Your task to perform on an android device: open app "Google Photos" (install if not already installed) Image 0: 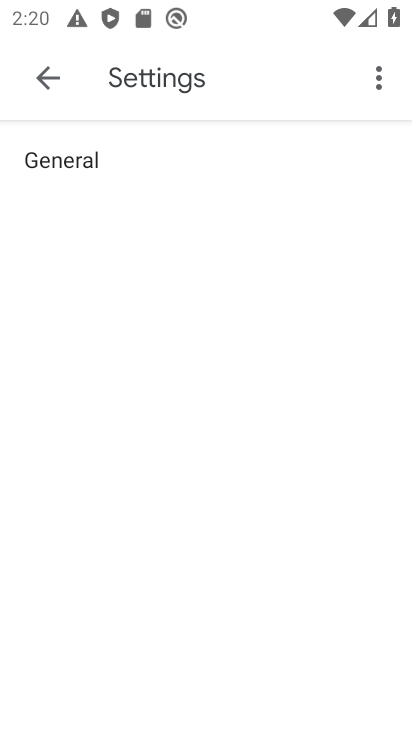
Step 0: press home button
Your task to perform on an android device: open app "Google Photos" (install if not already installed) Image 1: 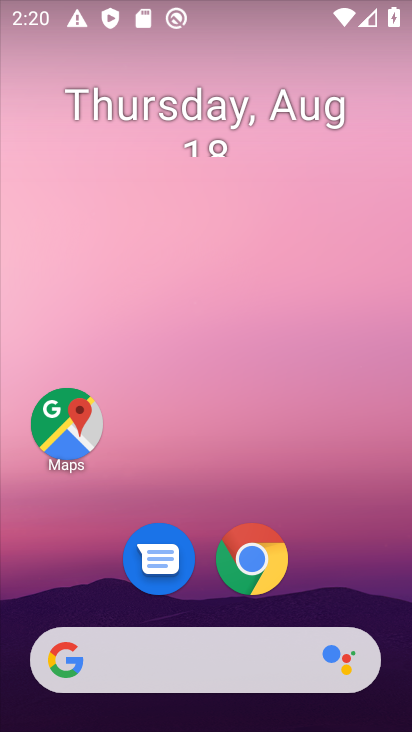
Step 1: drag from (236, 577) to (354, 69)
Your task to perform on an android device: open app "Google Photos" (install if not already installed) Image 2: 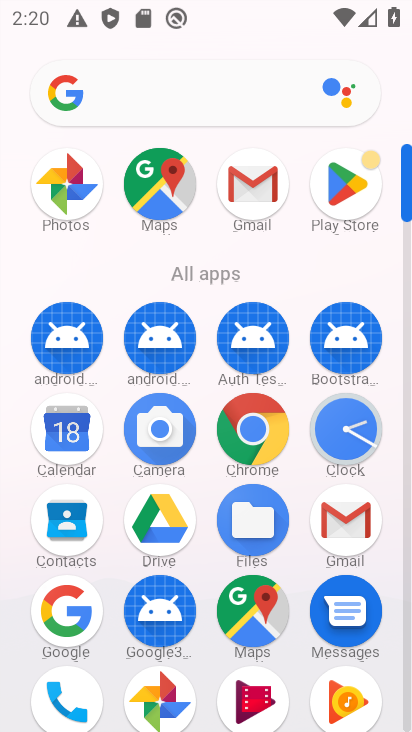
Step 2: click (339, 182)
Your task to perform on an android device: open app "Google Photos" (install if not already installed) Image 3: 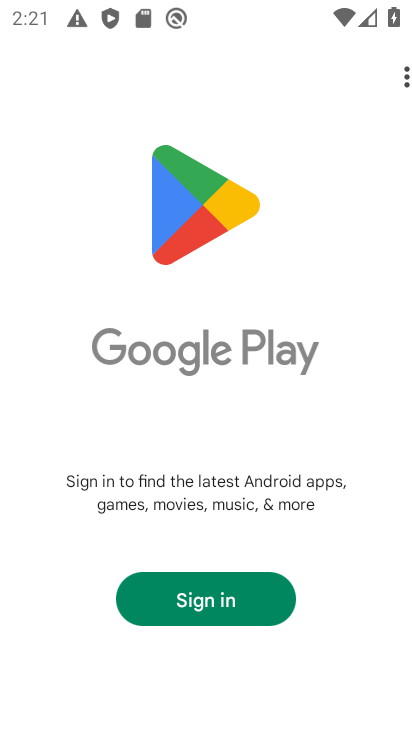
Step 3: click (210, 603)
Your task to perform on an android device: open app "Google Photos" (install if not already installed) Image 4: 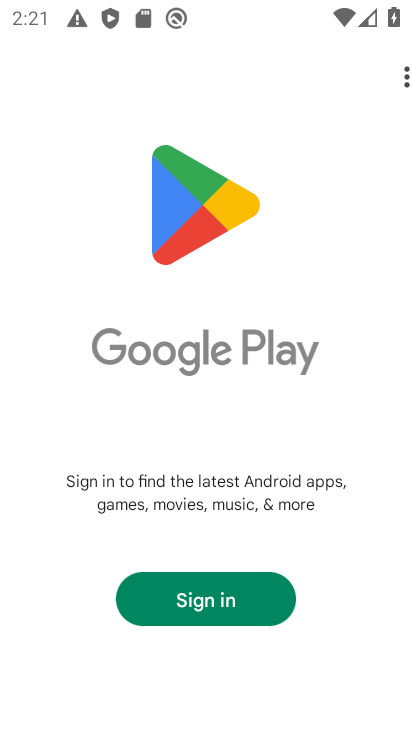
Step 4: click (210, 603)
Your task to perform on an android device: open app "Google Photos" (install if not already installed) Image 5: 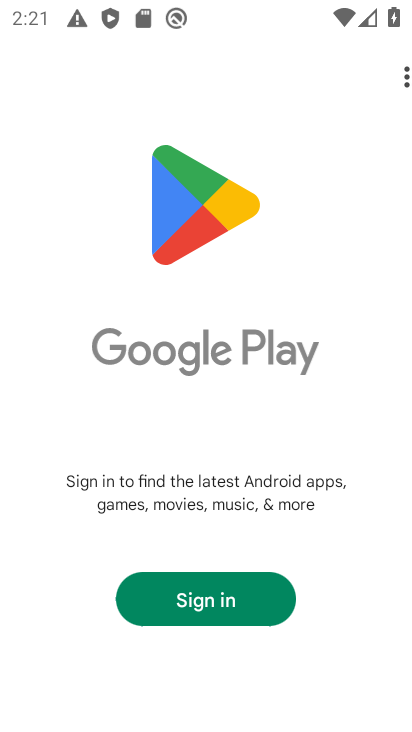
Step 5: click (210, 602)
Your task to perform on an android device: open app "Google Photos" (install if not already installed) Image 6: 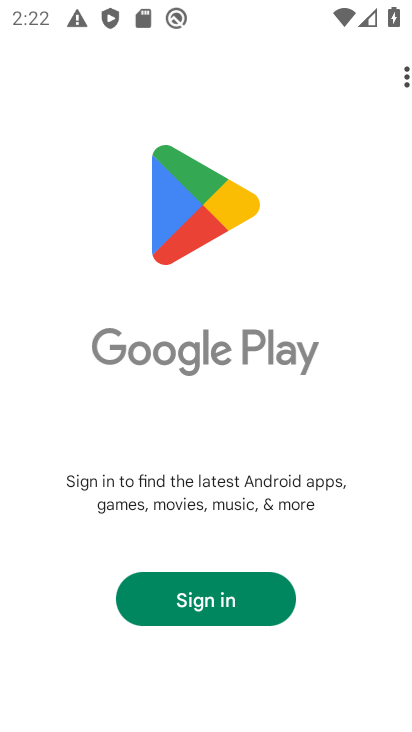
Step 6: click (210, 602)
Your task to perform on an android device: open app "Google Photos" (install if not already installed) Image 7: 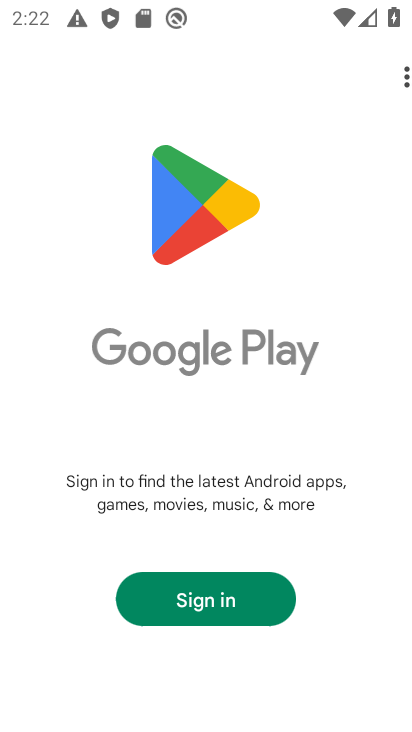
Step 7: click (210, 602)
Your task to perform on an android device: open app "Google Photos" (install if not already installed) Image 8: 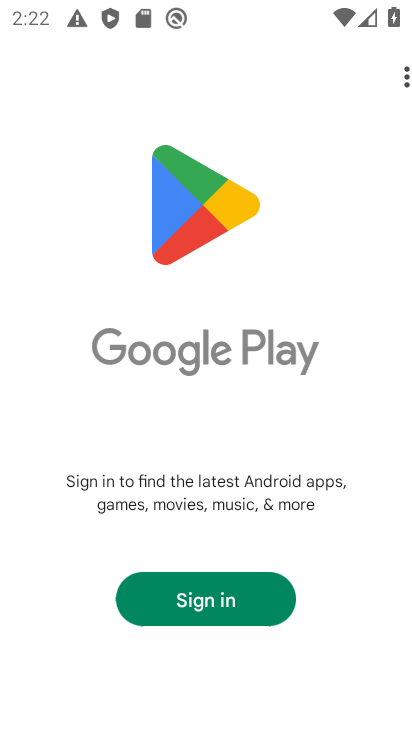
Step 8: click (210, 601)
Your task to perform on an android device: open app "Google Photos" (install if not already installed) Image 9: 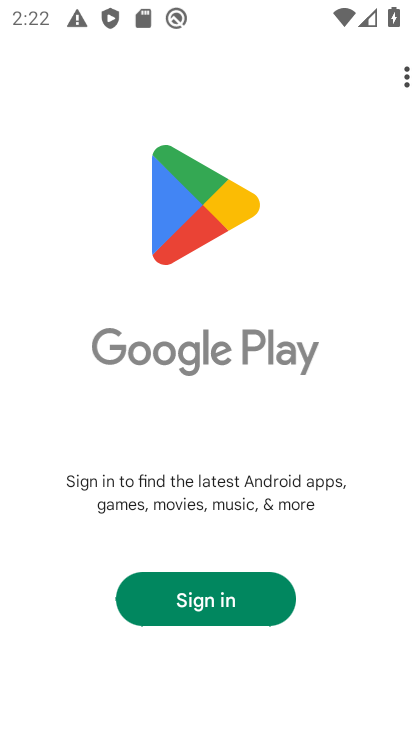
Step 9: click (210, 601)
Your task to perform on an android device: open app "Google Photos" (install if not already installed) Image 10: 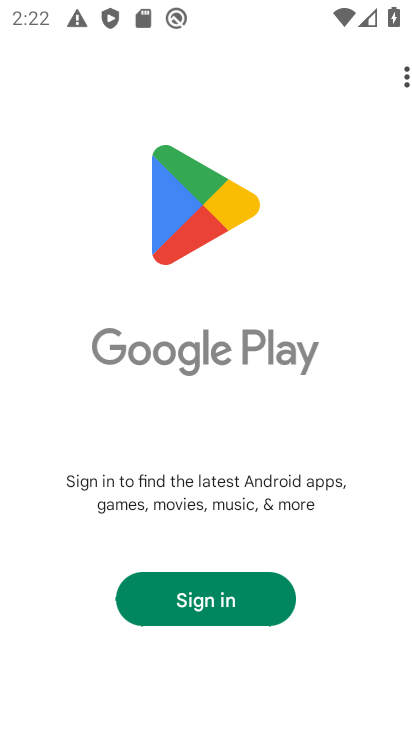
Step 10: click (210, 601)
Your task to perform on an android device: open app "Google Photos" (install if not already installed) Image 11: 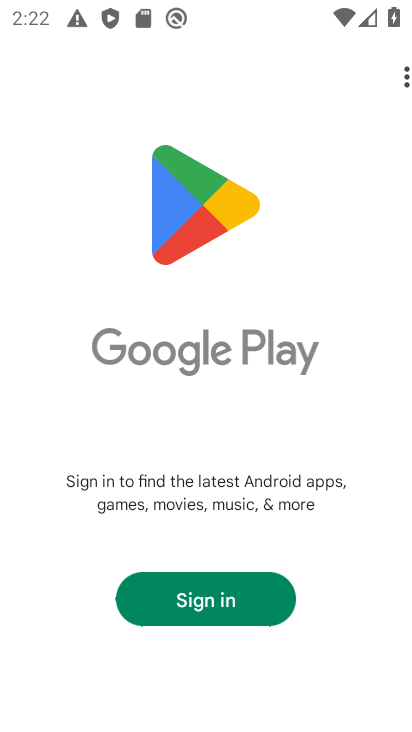
Step 11: click (210, 601)
Your task to perform on an android device: open app "Google Photos" (install if not already installed) Image 12: 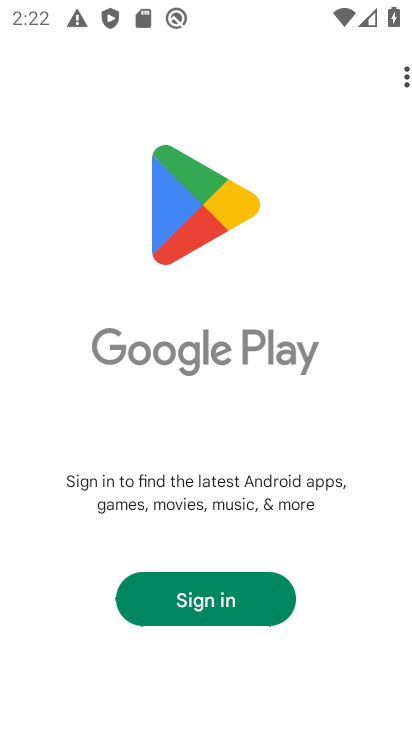
Step 12: click (210, 601)
Your task to perform on an android device: open app "Google Photos" (install if not already installed) Image 13: 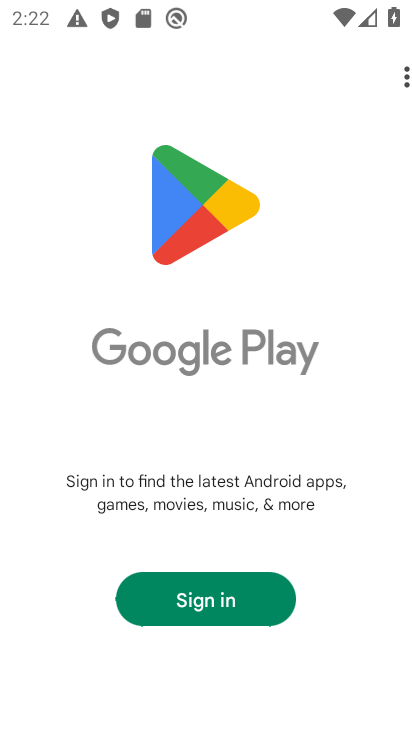
Step 13: click (189, 629)
Your task to perform on an android device: open app "Google Photos" (install if not already installed) Image 14: 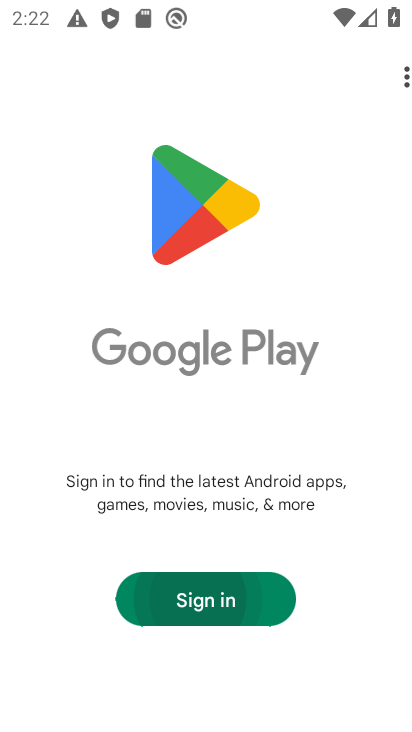
Step 14: click (187, 604)
Your task to perform on an android device: open app "Google Photos" (install if not already installed) Image 15: 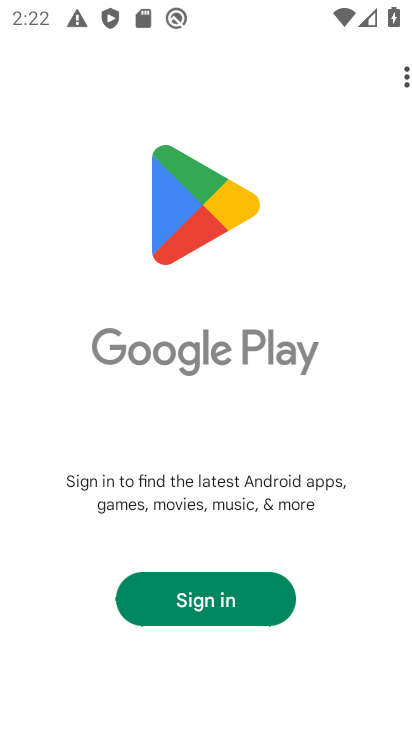
Step 15: click (189, 603)
Your task to perform on an android device: open app "Google Photos" (install if not already installed) Image 16: 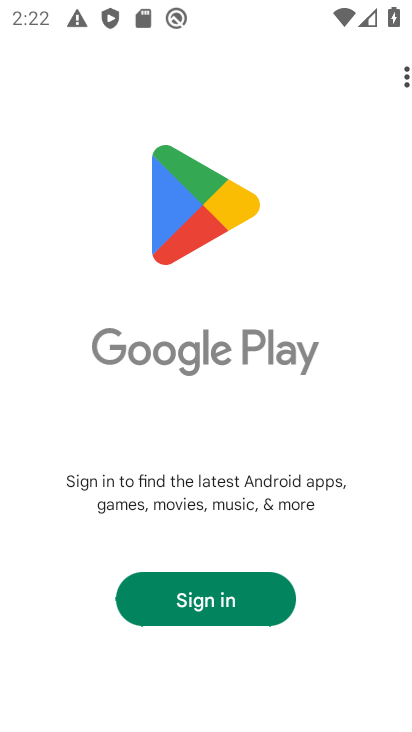
Step 16: click (188, 603)
Your task to perform on an android device: open app "Google Photos" (install if not already installed) Image 17: 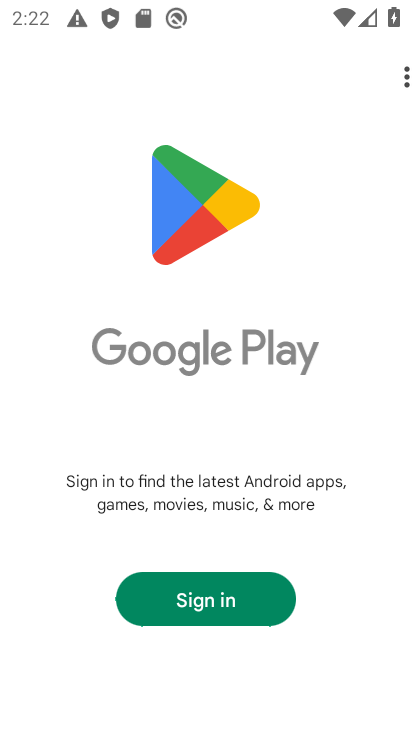
Step 17: task complete